Your task to perform on an android device: open a bookmark in the chrome app Image 0: 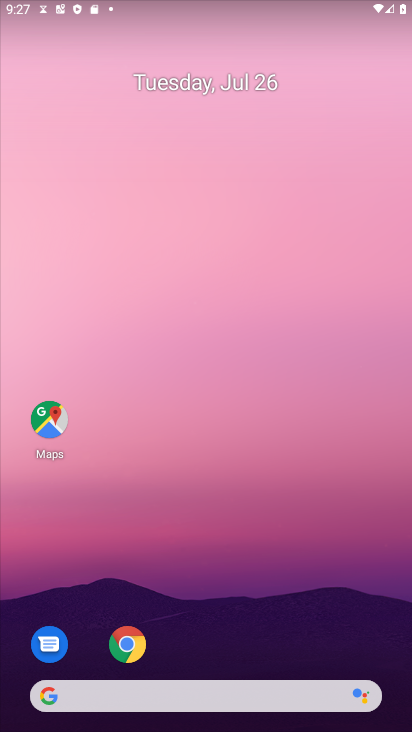
Step 0: click (146, 646)
Your task to perform on an android device: open a bookmark in the chrome app Image 1: 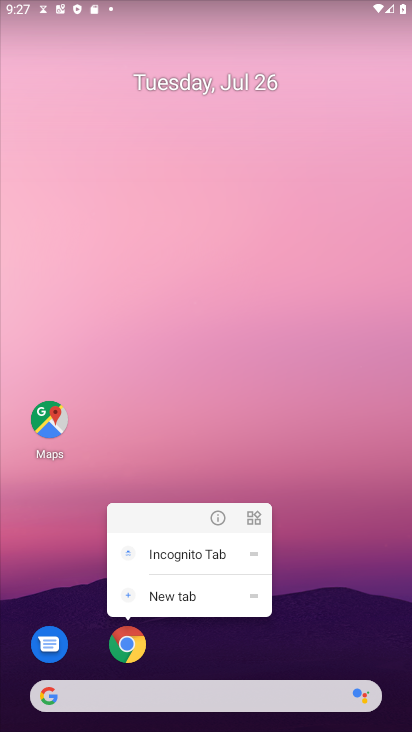
Step 1: click (132, 651)
Your task to perform on an android device: open a bookmark in the chrome app Image 2: 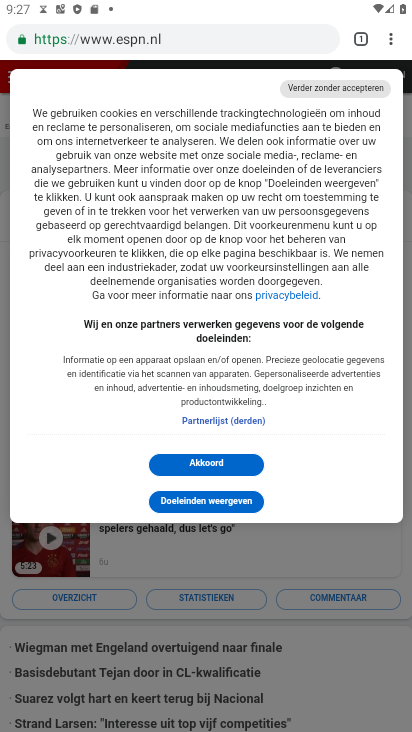
Step 2: click (389, 37)
Your task to perform on an android device: open a bookmark in the chrome app Image 3: 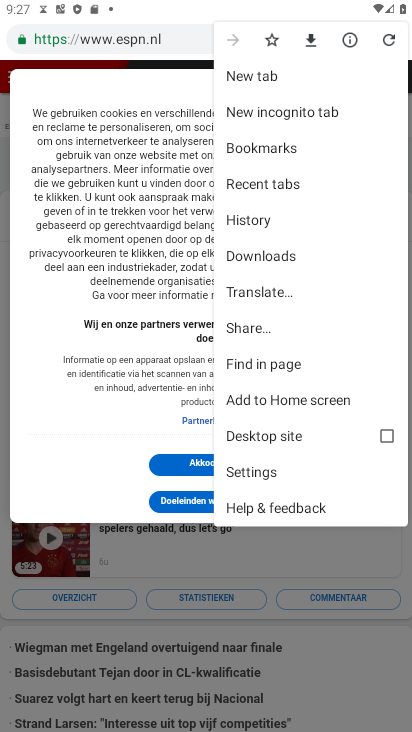
Step 3: click (258, 157)
Your task to perform on an android device: open a bookmark in the chrome app Image 4: 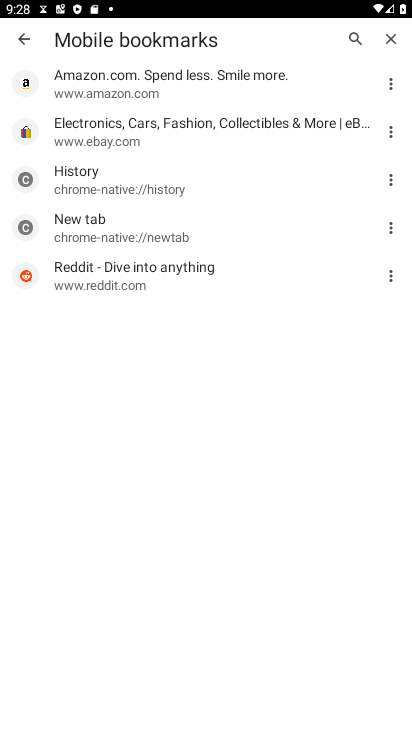
Step 4: click (130, 122)
Your task to perform on an android device: open a bookmark in the chrome app Image 5: 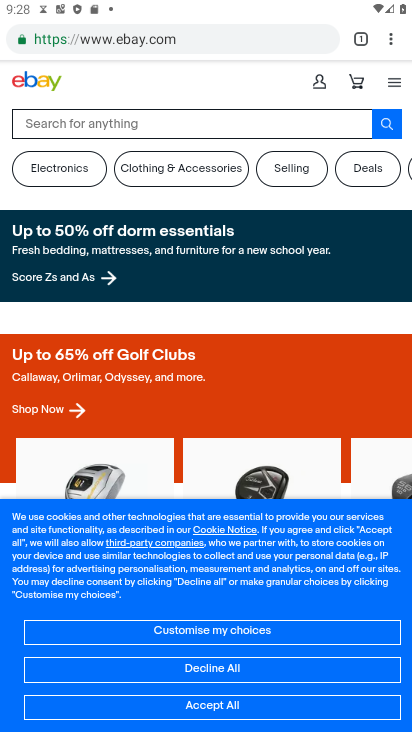
Step 5: task complete